Your task to perform on an android device: toggle wifi Image 0: 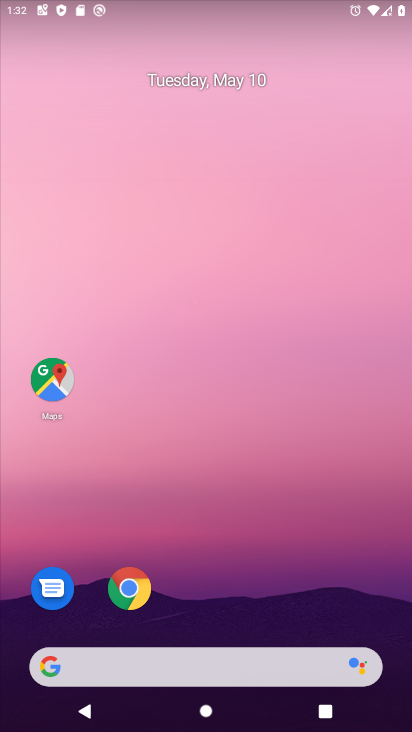
Step 0: drag from (269, 578) to (264, 112)
Your task to perform on an android device: toggle wifi Image 1: 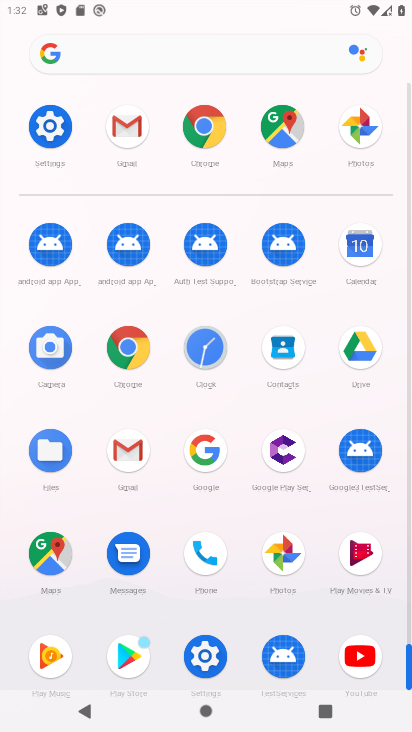
Step 1: click (44, 125)
Your task to perform on an android device: toggle wifi Image 2: 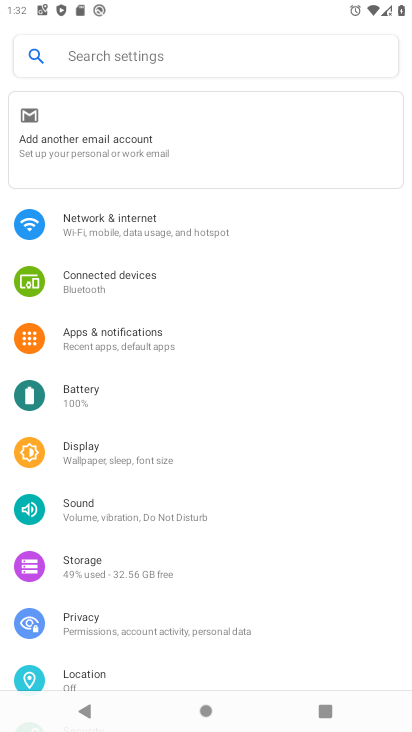
Step 2: click (152, 225)
Your task to perform on an android device: toggle wifi Image 3: 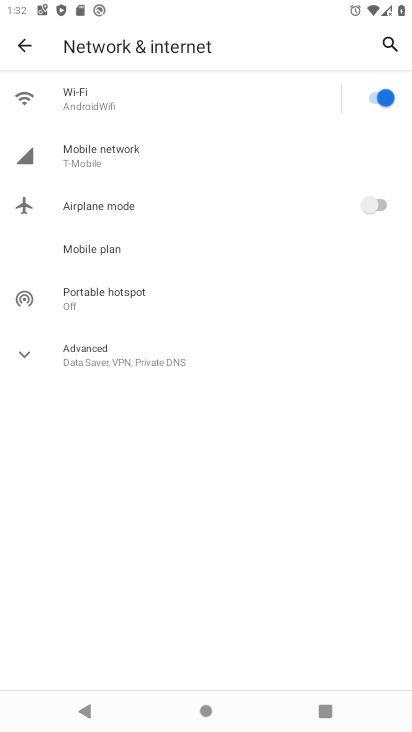
Step 3: click (384, 100)
Your task to perform on an android device: toggle wifi Image 4: 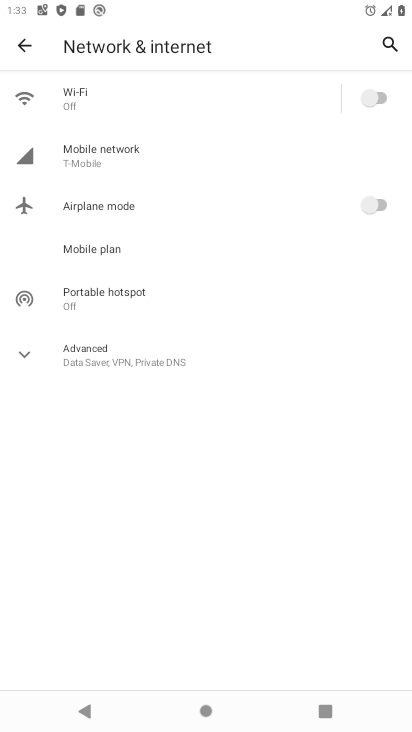
Step 4: task complete